Your task to perform on an android device: turn on bluetooth scan Image 0: 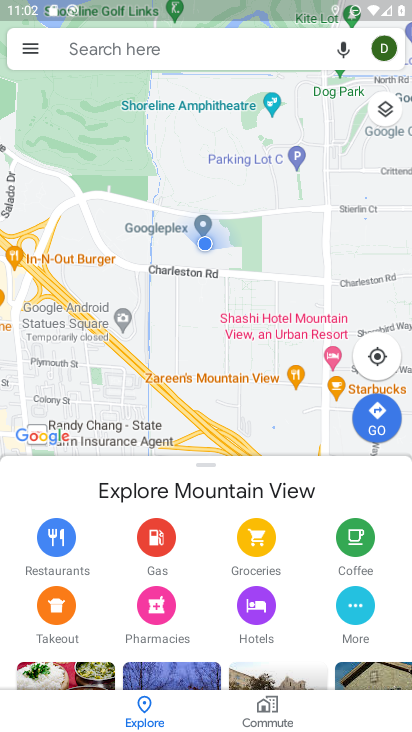
Step 0: press home button
Your task to perform on an android device: turn on bluetooth scan Image 1: 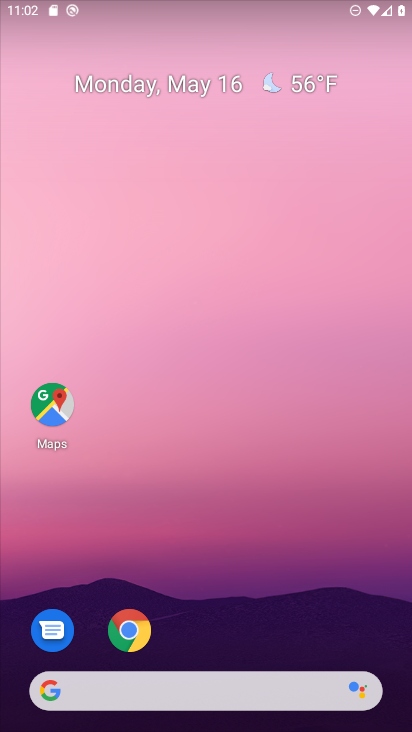
Step 1: drag from (215, 513) to (206, 56)
Your task to perform on an android device: turn on bluetooth scan Image 2: 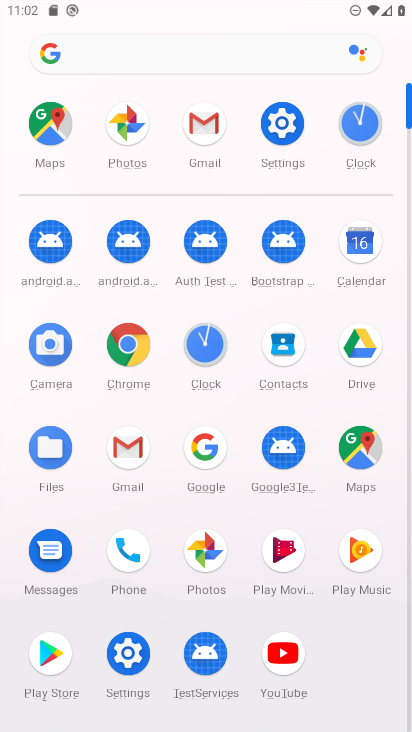
Step 2: click (277, 127)
Your task to perform on an android device: turn on bluetooth scan Image 3: 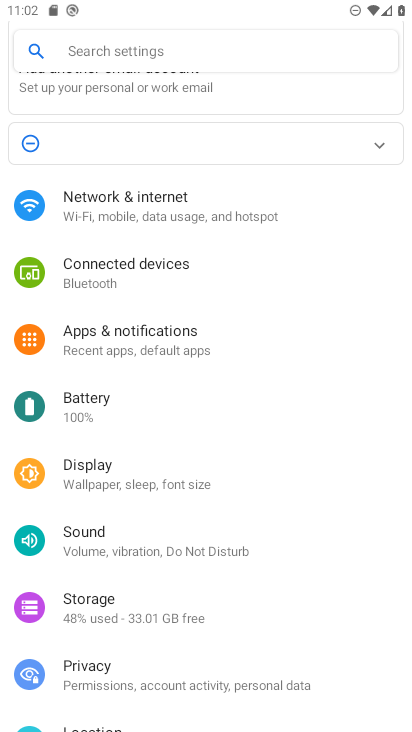
Step 3: drag from (218, 521) to (182, 229)
Your task to perform on an android device: turn on bluetooth scan Image 4: 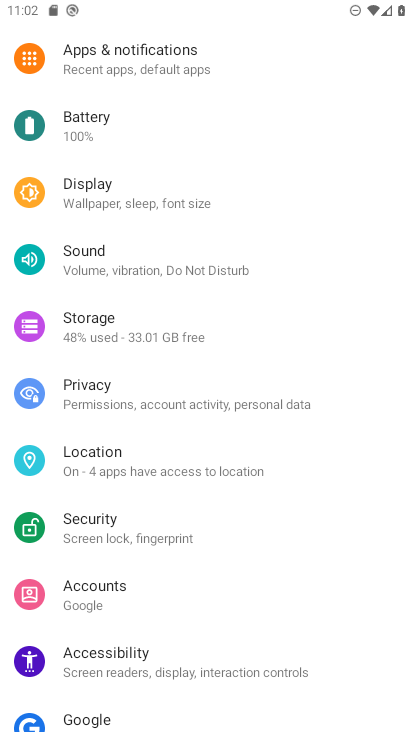
Step 4: click (177, 453)
Your task to perform on an android device: turn on bluetooth scan Image 5: 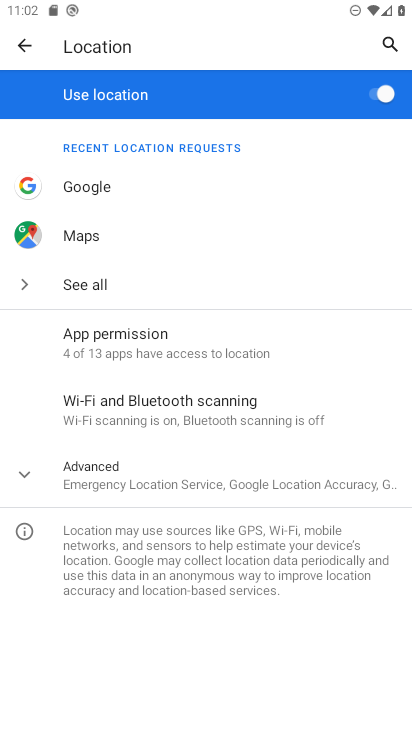
Step 5: click (242, 407)
Your task to perform on an android device: turn on bluetooth scan Image 6: 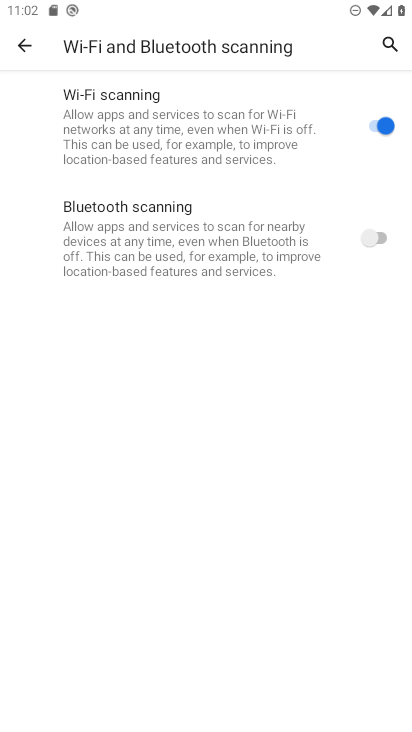
Step 6: click (370, 232)
Your task to perform on an android device: turn on bluetooth scan Image 7: 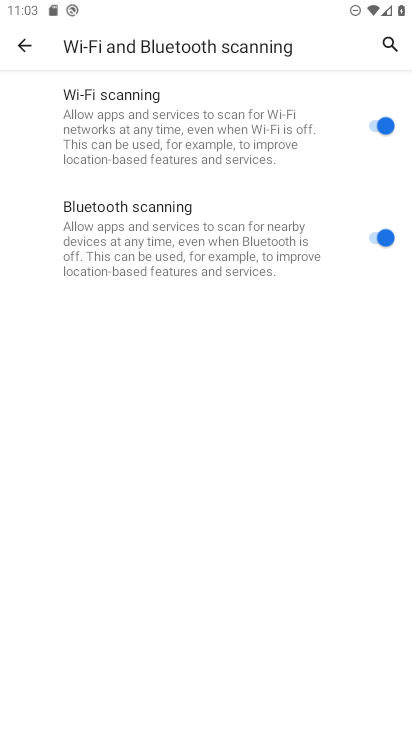
Step 7: task complete